Your task to perform on an android device: Open wifi settings Image 0: 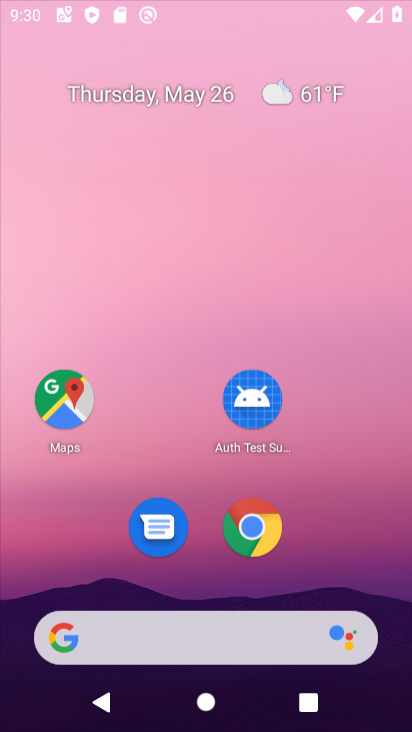
Step 0: drag from (406, 443) to (401, 58)
Your task to perform on an android device: Open wifi settings Image 1: 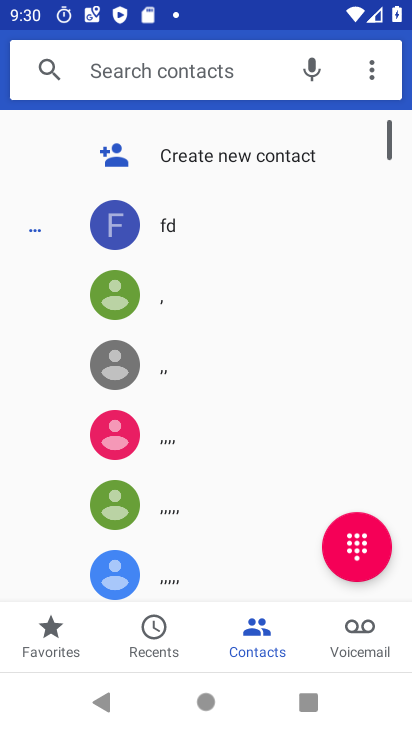
Step 1: press home button
Your task to perform on an android device: Open wifi settings Image 2: 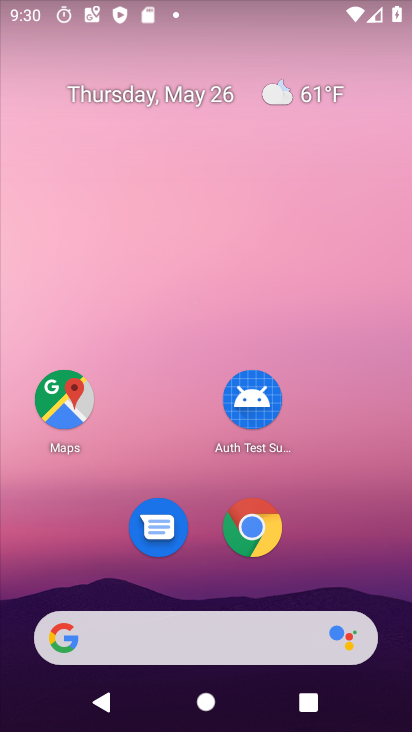
Step 2: drag from (373, 530) to (338, 180)
Your task to perform on an android device: Open wifi settings Image 3: 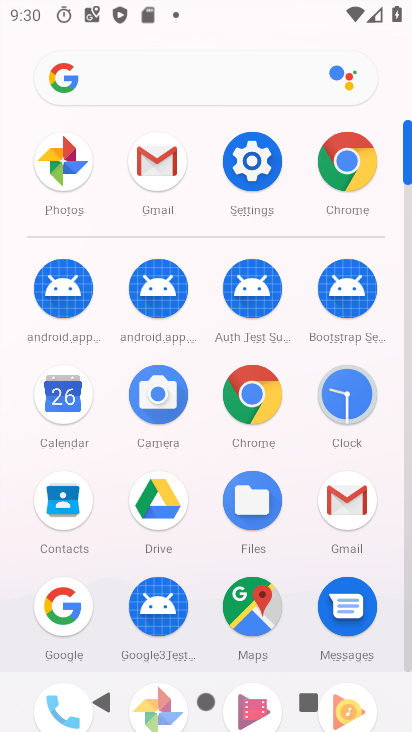
Step 3: click (259, 152)
Your task to perform on an android device: Open wifi settings Image 4: 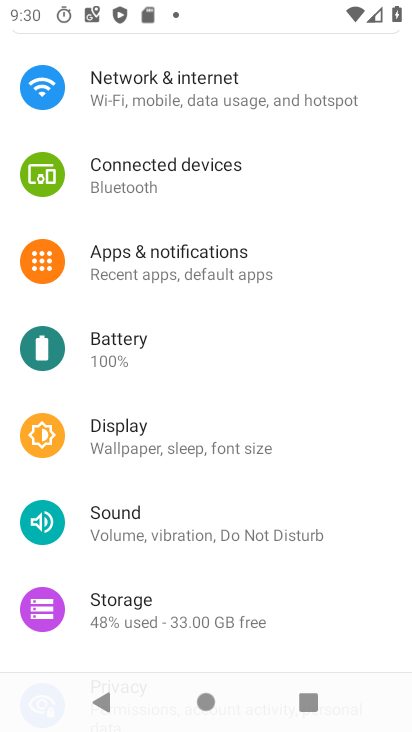
Step 4: drag from (257, 161) to (264, 560)
Your task to perform on an android device: Open wifi settings Image 5: 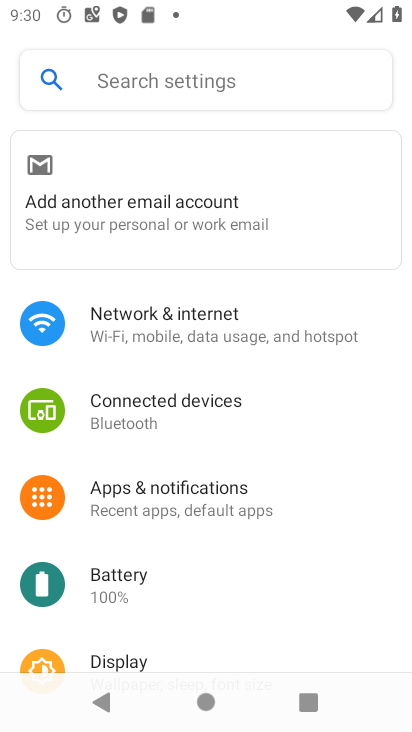
Step 5: click (208, 335)
Your task to perform on an android device: Open wifi settings Image 6: 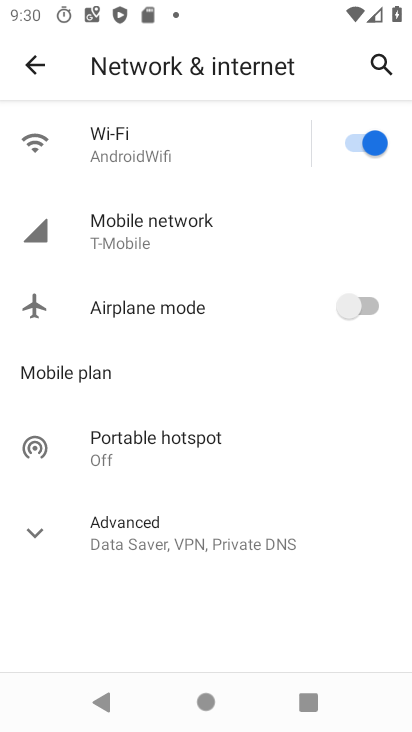
Step 6: click (130, 162)
Your task to perform on an android device: Open wifi settings Image 7: 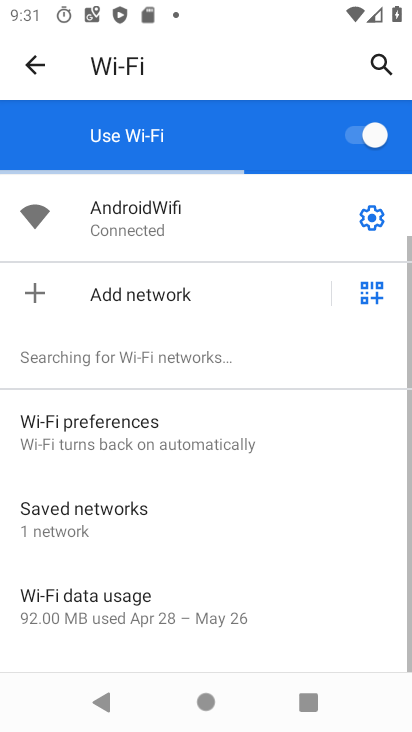
Step 7: task complete